Your task to perform on an android device: Open Android settings Image 0: 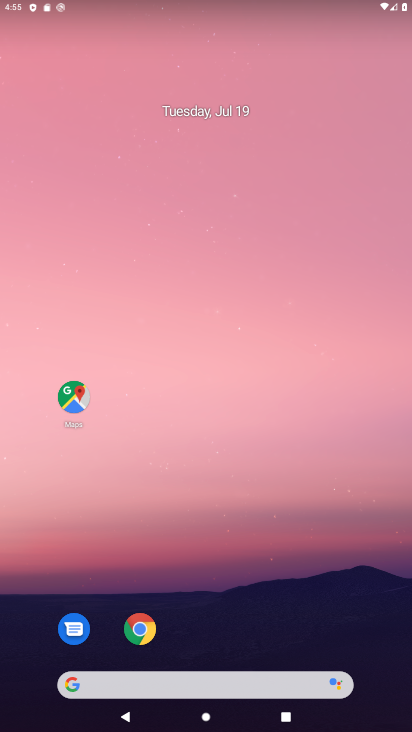
Step 0: drag from (235, 638) to (200, 20)
Your task to perform on an android device: Open Android settings Image 1: 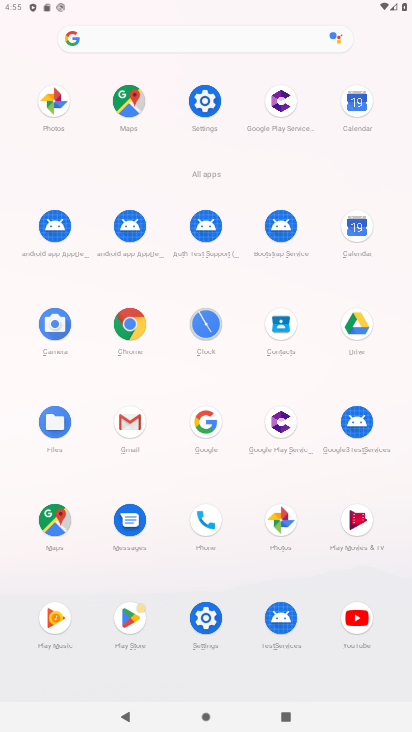
Step 1: click (203, 114)
Your task to perform on an android device: Open Android settings Image 2: 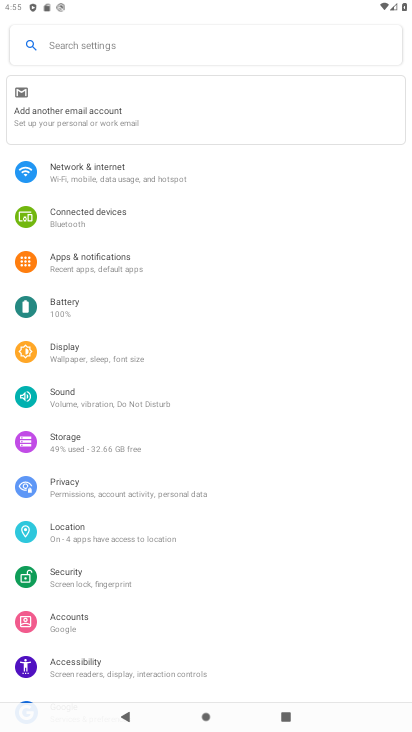
Step 2: task complete